Your task to perform on an android device: turn off location history Image 0: 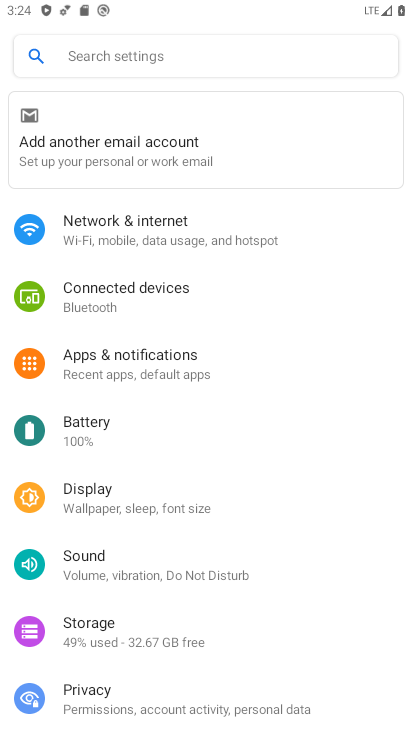
Step 0: press home button
Your task to perform on an android device: turn off location history Image 1: 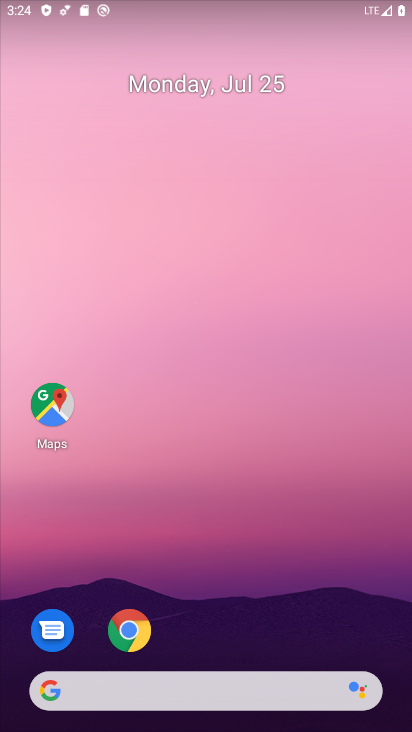
Step 1: drag from (252, 600) to (289, 19)
Your task to perform on an android device: turn off location history Image 2: 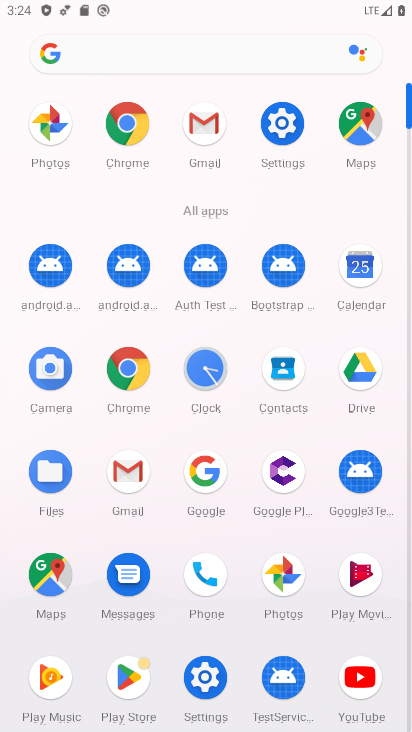
Step 2: click (185, 677)
Your task to perform on an android device: turn off location history Image 3: 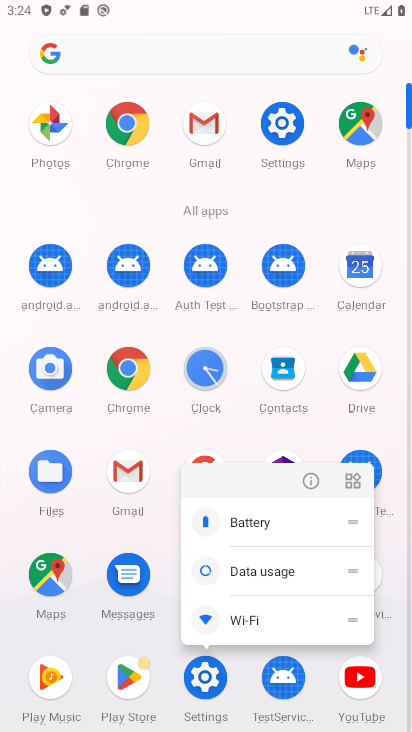
Step 3: click (188, 681)
Your task to perform on an android device: turn off location history Image 4: 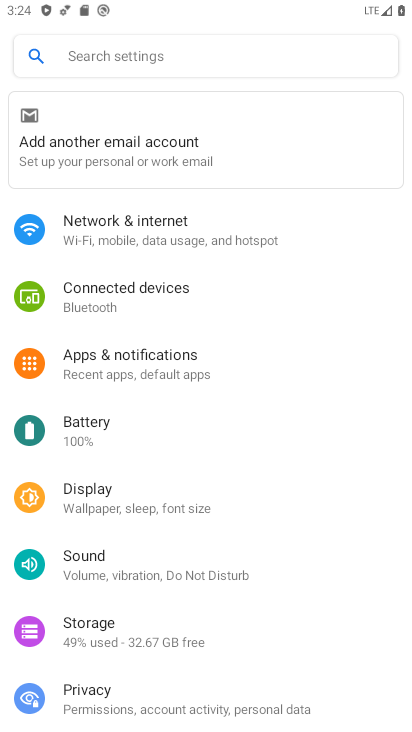
Step 4: drag from (129, 670) to (155, 59)
Your task to perform on an android device: turn off location history Image 5: 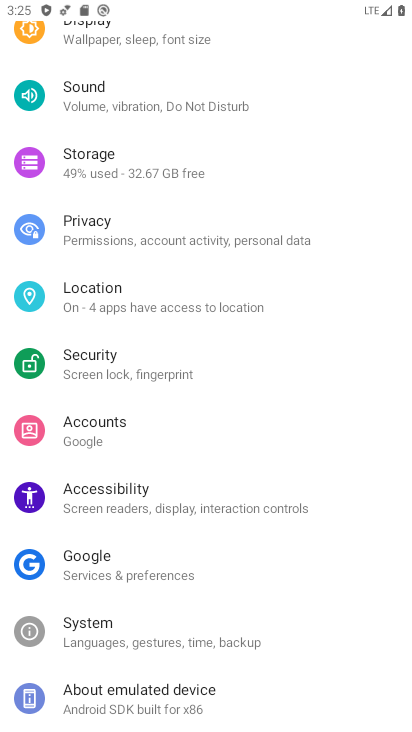
Step 5: click (124, 313)
Your task to perform on an android device: turn off location history Image 6: 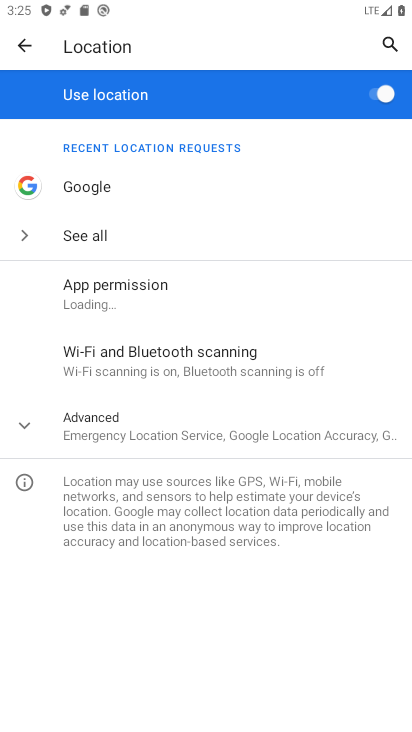
Step 6: click (125, 433)
Your task to perform on an android device: turn off location history Image 7: 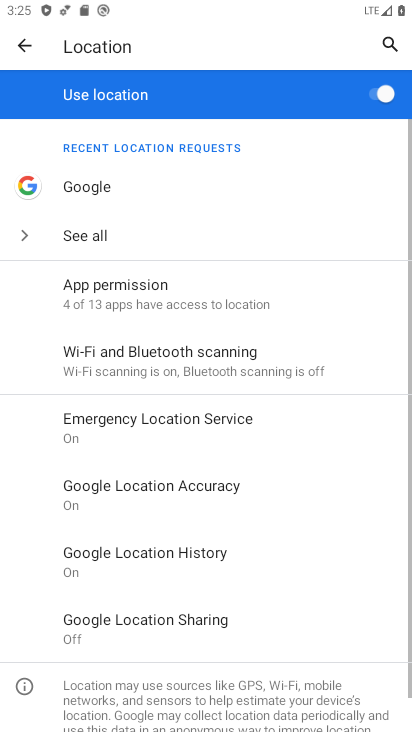
Step 7: click (194, 555)
Your task to perform on an android device: turn off location history Image 8: 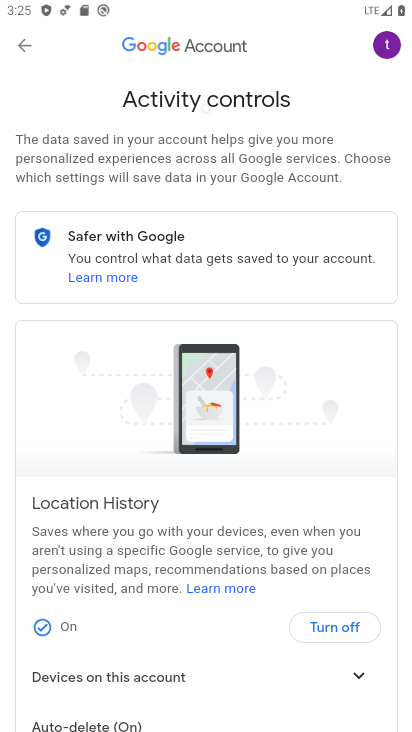
Step 8: click (319, 625)
Your task to perform on an android device: turn off location history Image 9: 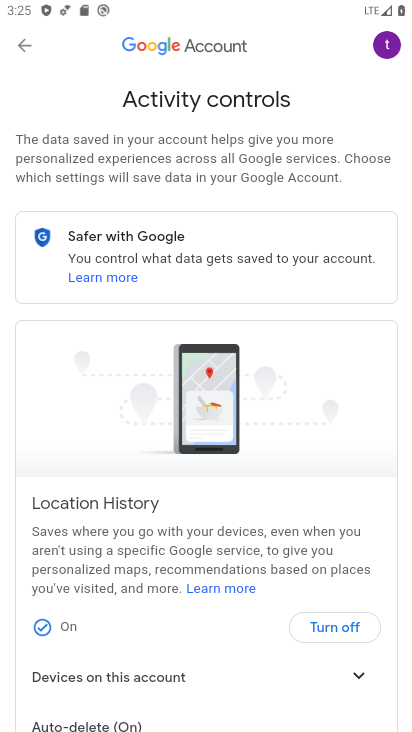
Step 9: click (319, 625)
Your task to perform on an android device: turn off location history Image 10: 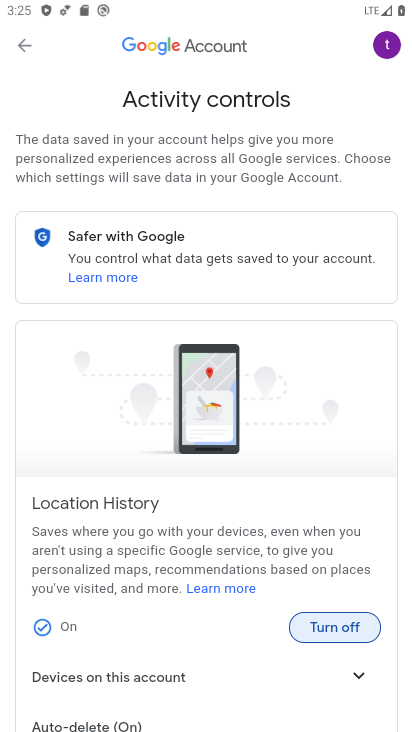
Step 10: click (318, 625)
Your task to perform on an android device: turn off location history Image 11: 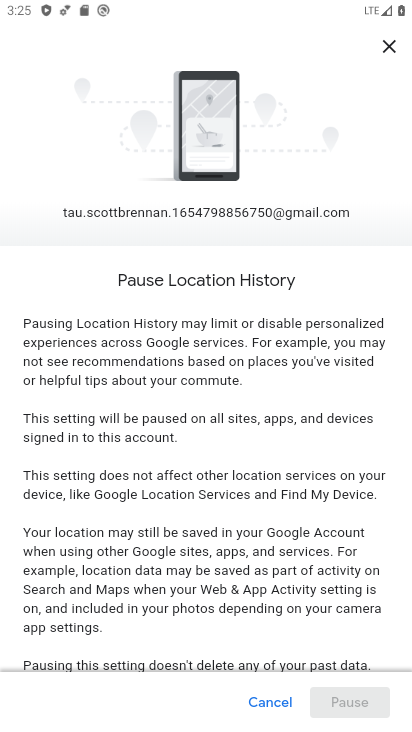
Step 11: drag from (293, 640) to (268, 35)
Your task to perform on an android device: turn off location history Image 12: 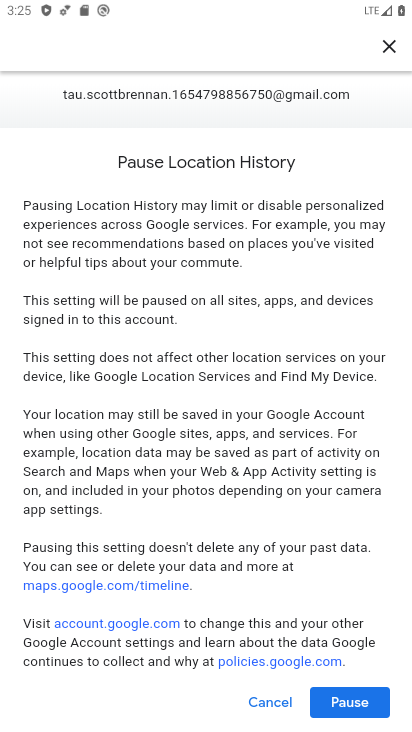
Step 12: drag from (265, 582) to (252, 53)
Your task to perform on an android device: turn off location history Image 13: 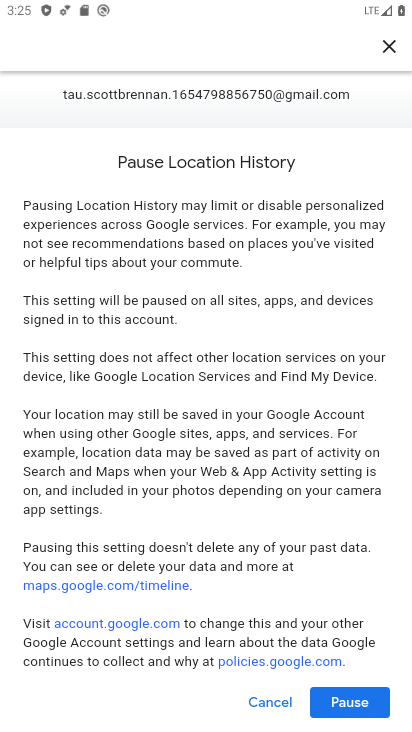
Step 13: click (341, 702)
Your task to perform on an android device: turn off location history Image 14: 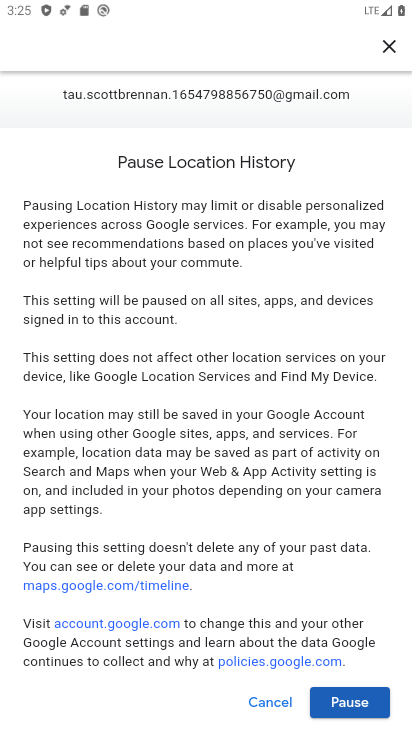
Step 14: click (373, 704)
Your task to perform on an android device: turn off location history Image 15: 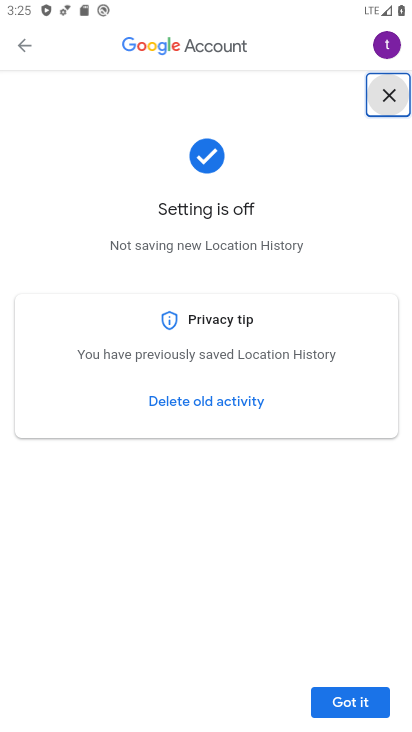
Step 15: click (365, 702)
Your task to perform on an android device: turn off location history Image 16: 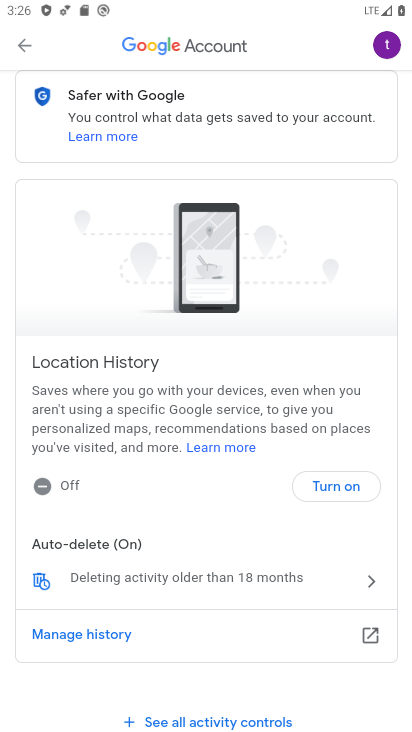
Step 16: task complete